Your task to perform on an android device: read, delete, or share a saved page in the chrome app Image 0: 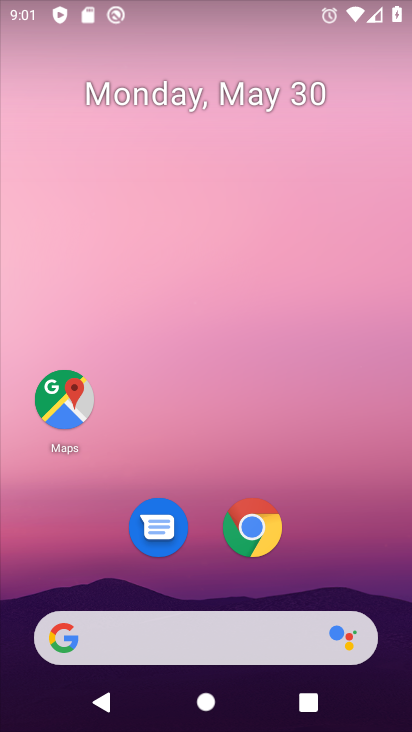
Step 0: drag from (312, 698) to (400, 15)
Your task to perform on an android device: read, delete, or share a saved page in the chrome app Image 1: 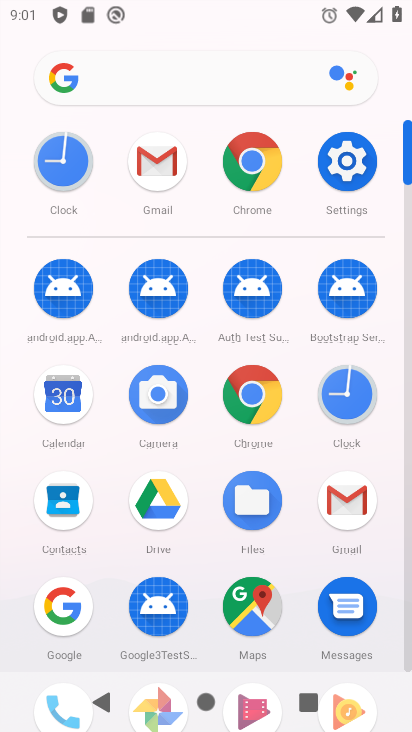
Step 1: click (256, 383)
Your task to perform on an android device: read, delete, or share a saved page in the chrome app Image 2: 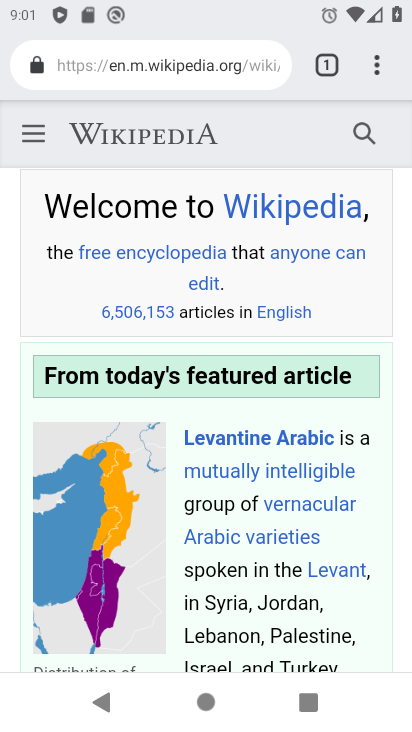
Step 2: click (382, 62)
Your task to perform on an android device: read, delete, or share a saved page in the chrome app Image 3: 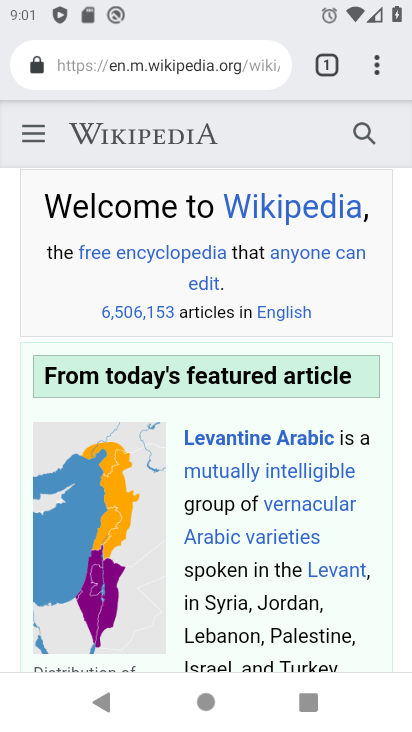
Step 3: task complete